Your task to perform on an android device: Open privacy settings Image 0: 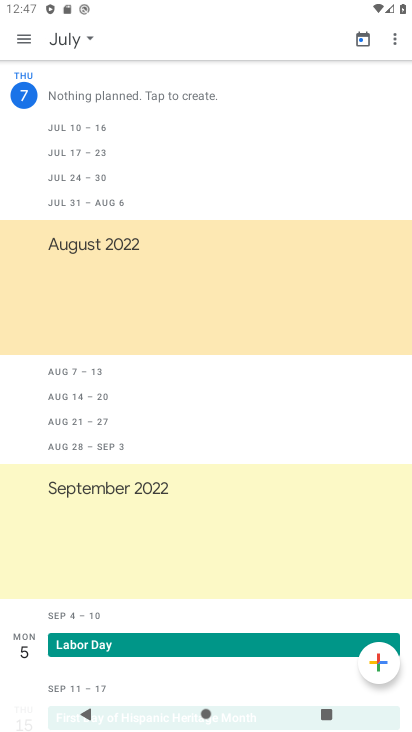
Step 0: press back button
Your task to perform on an android device: Open privacy settings Image 1: 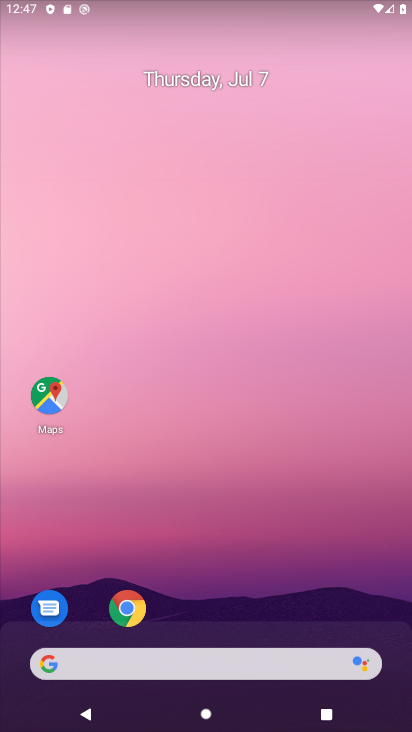
Step 1: drag from (216, 543) to (216, 6)
Your task to perform on an android device: Open privacy settings Image 2: 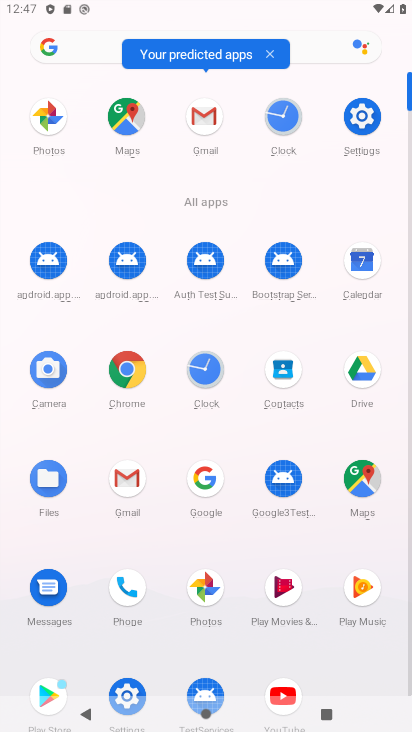
Step 2: click (373, 125)
Your task to perform on an android device: Open privacy settings Image 3: 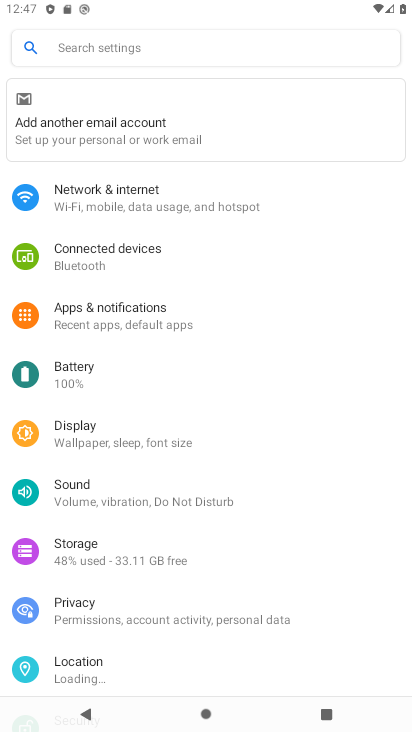
Step 3: click (104, 624)
Your task to perform on an android device: Open privacy settings Image 4: 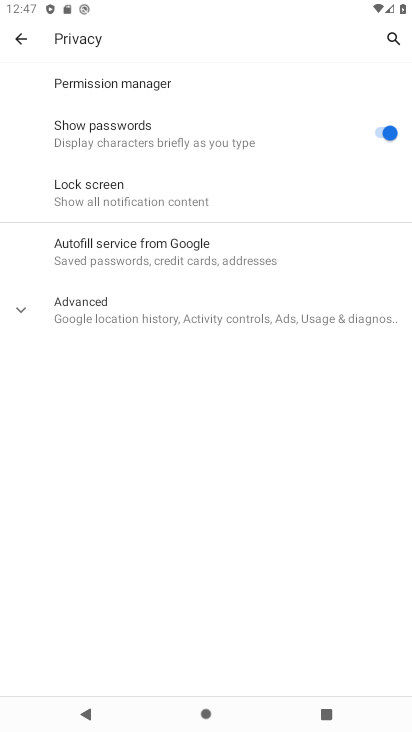
Step 4: task complete